Your task to perform on an android device: find which apps use the phone's location Image 0: 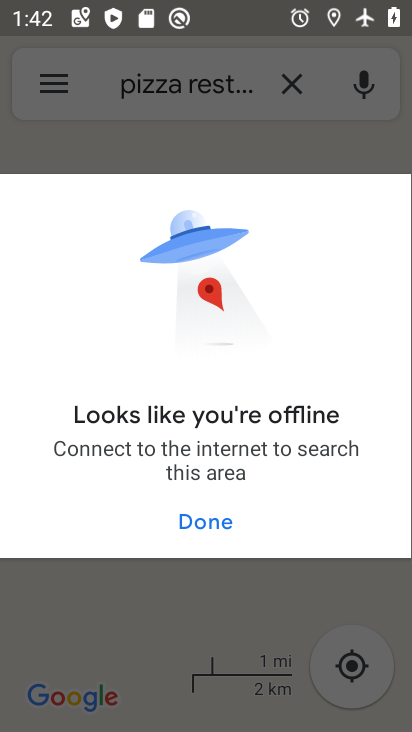
Step 0: press home button
Your task to perform on an android device: find which apps use the phone's location Image 1: 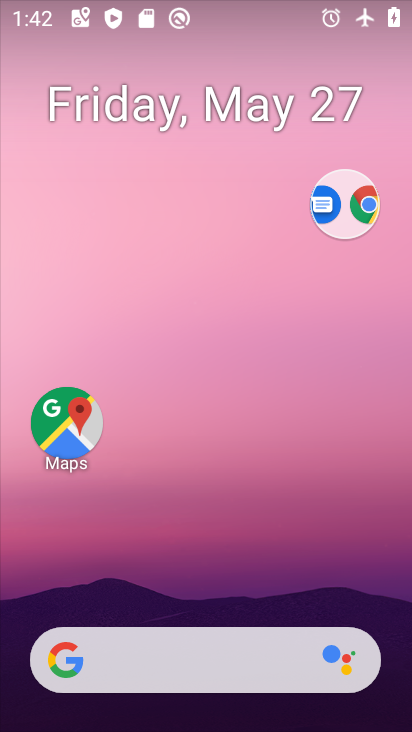
Step 1: drag from (234, 552) to (267, 188)
Your task to perform on an android device: find which apps use the phone's location Image 2: 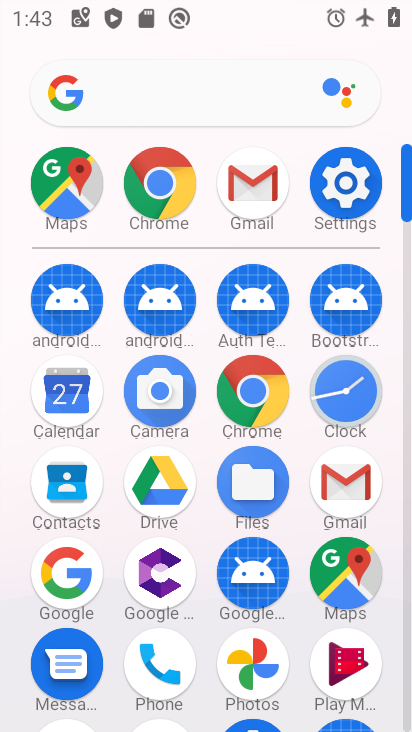
Step 2: drag from (243, 453) to (251, 255)
Your task to perform on an android device: find which apps use the phone's location Image 3: 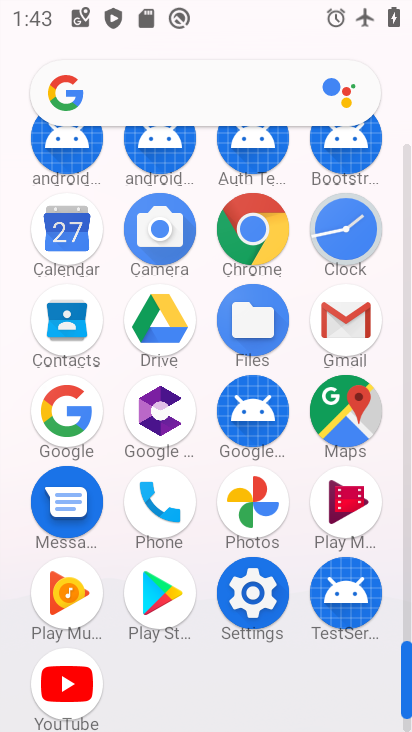
Step 3: click (276, 600)
Your task to perform on an android device: find which apps use the phone's location Image 4: 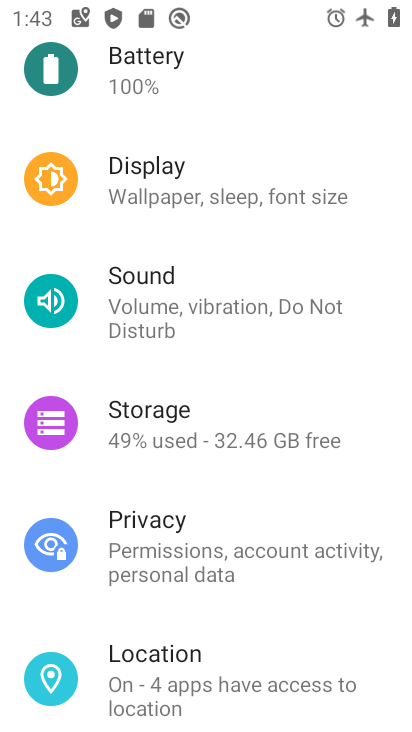
Step 4: drag from (187, 543) to (216, 397)
Your task to perform on an android device: find which apps use the phone's location Image 5: 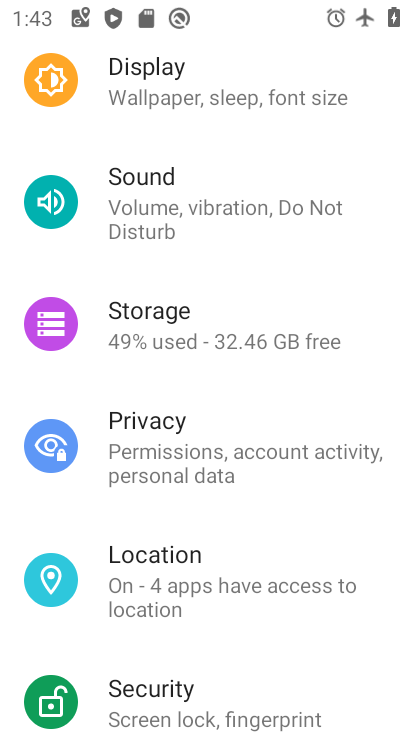
Step 5: click (171, 580)
Your task to perform on an android device: find which apps use the phone's location Image 6: 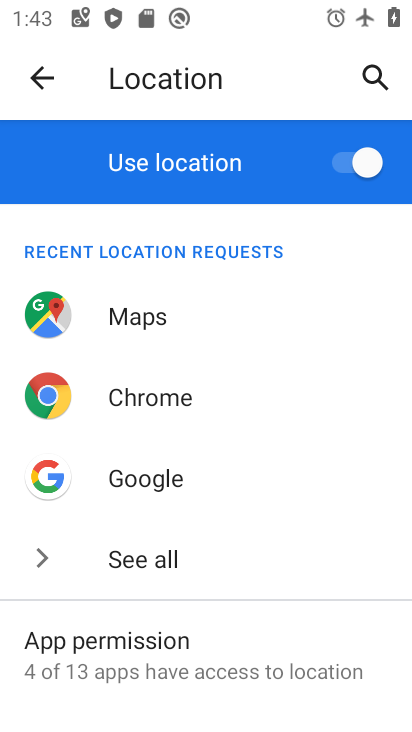
Step 6: drag from (160, 601) to (185, 376)
Your task to perform on an android device: find which apps use the phone's location Image 7: 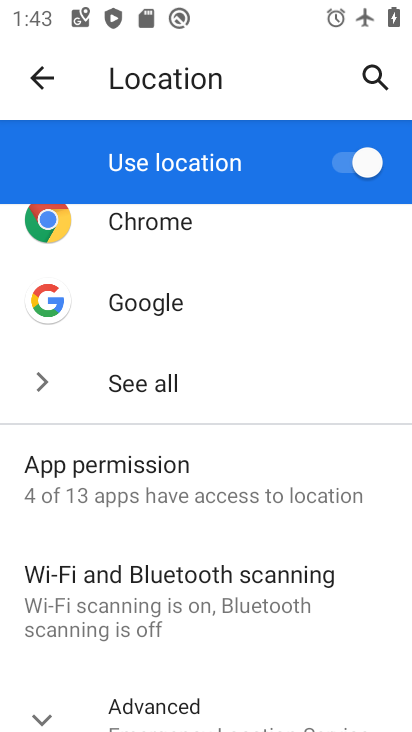
Step 7: click (175, 484)
Your task to perform on an android device: find which apps use the phone's location Image 8: 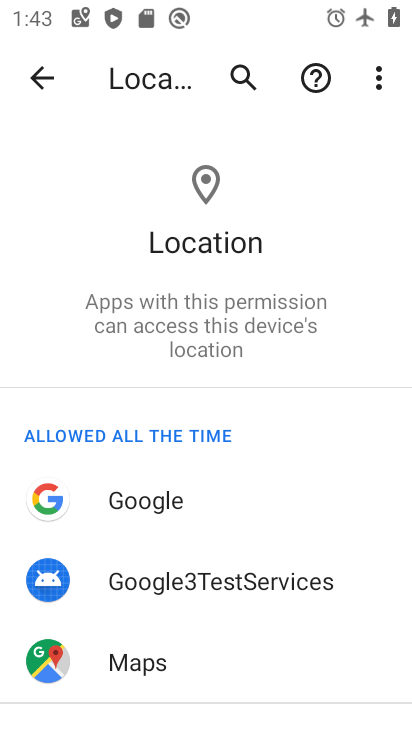
Step 8: task complete